Your task to perform on an android device: toggle javascript in the chrome app Image 0: 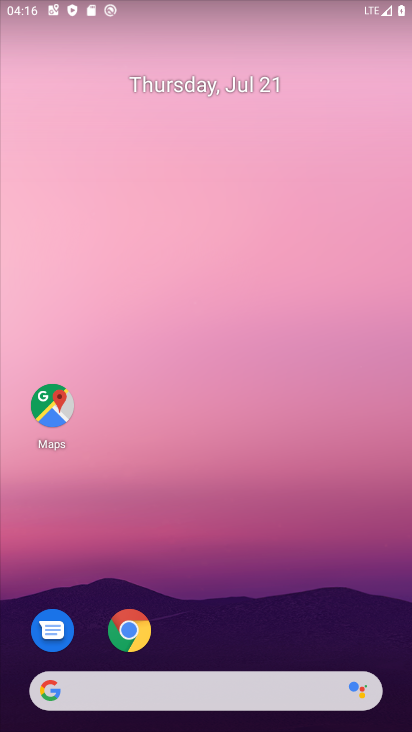
Step 0: click (151, 621)
Your task to perform on an android device: toggle javascript in the chrome app Image 1: 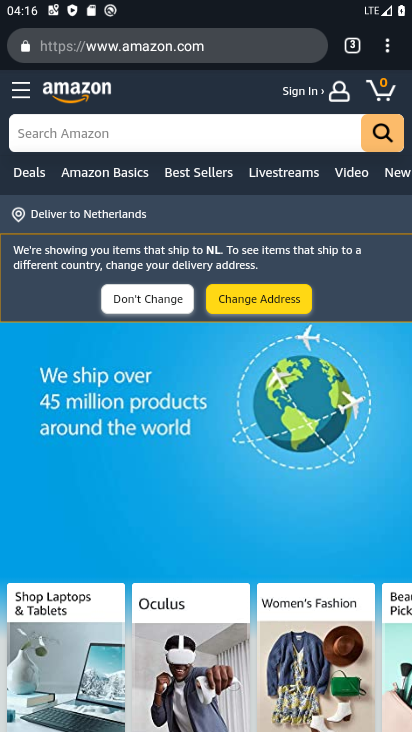
Step 1: click (387, 39)
Your task to perform on an android device: toggle javascript in the chrome app Image 2: 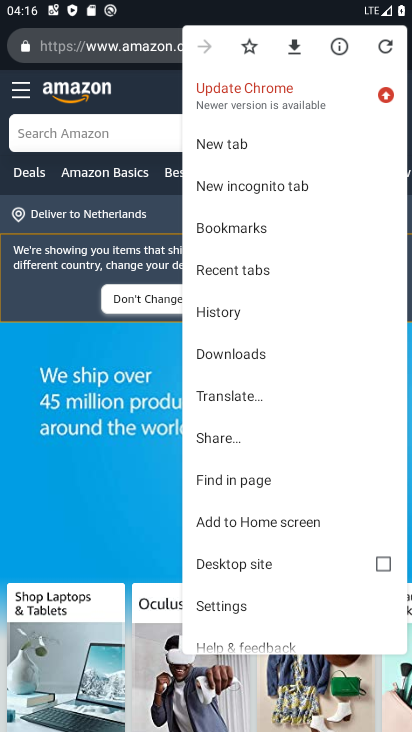
Step 2: click (258, 614)
Your task to perform on an android device: toggle javascript in the chrome app Image 3: 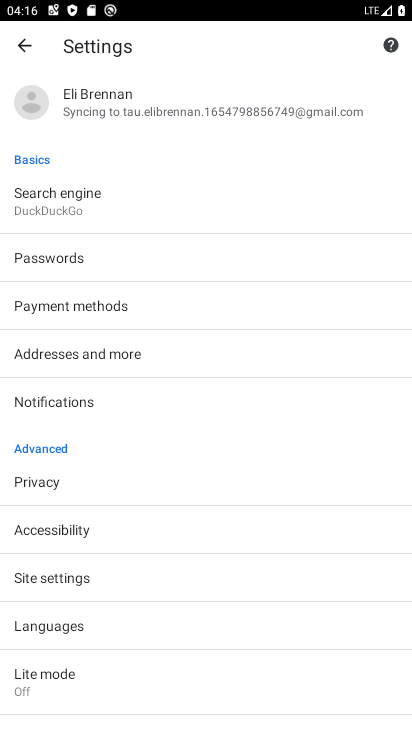
Step 3: click (99, 574)
Your task to perform on an android device: toggle javascript in the chrome app Image 4: 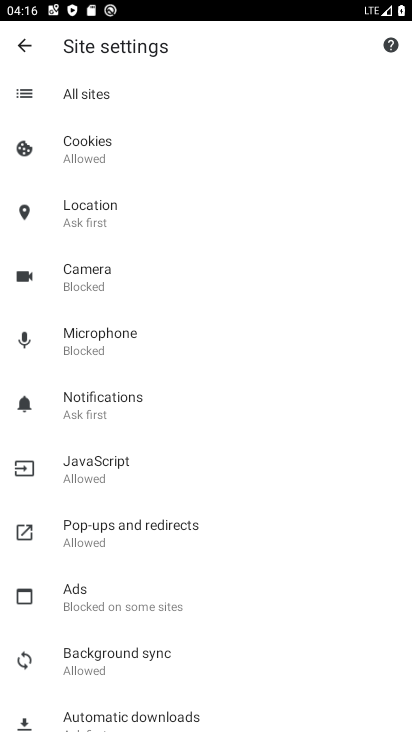
Step 4: click (110, 490)
Your task to perform on an android device: toggle javascript in the chrome app Image 5: 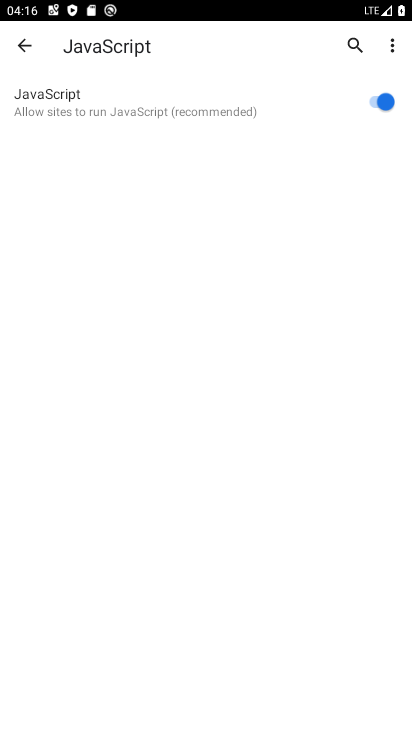
Step 5: click (374, 81)
Your task to perform on an android device: toggle javascript in the chrome app Image 6: 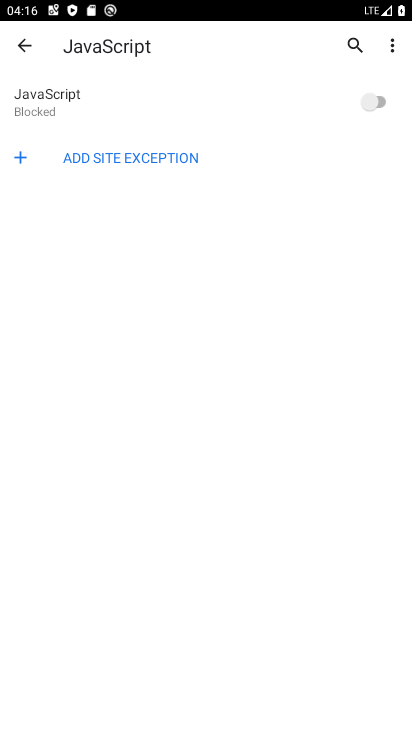
Step 6: click (374, 81)
Your task to perform on an android device: toggle javascript in the chrome app Image 7: 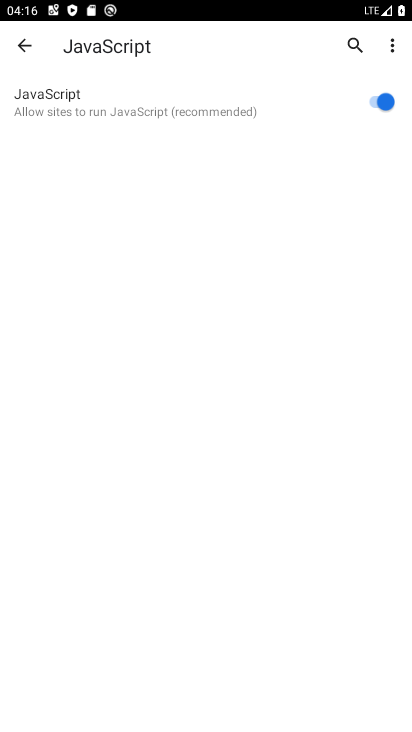
Step 7: click (374, 81)
Your task to perform on an android device: toggle javascript in the chrome app Image 8: 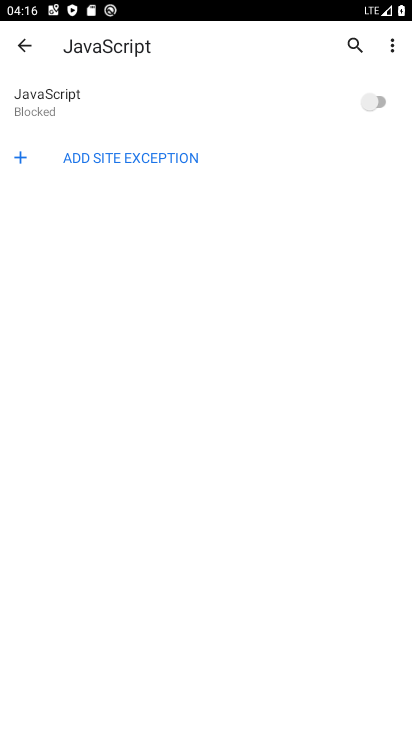
Step 8: click (374, 81)
Your task to perform on an android device: toggle javascript in the chrome app Image 9: 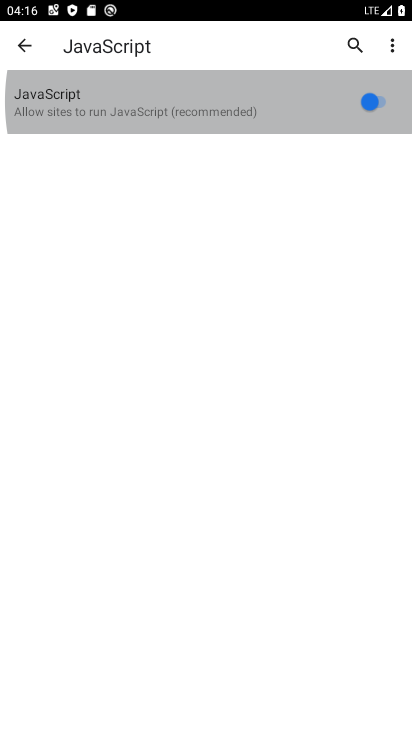
Step 9: click (391, 105)
Your task to perform on an android device: toggle javascript in the chrome app Image 10: 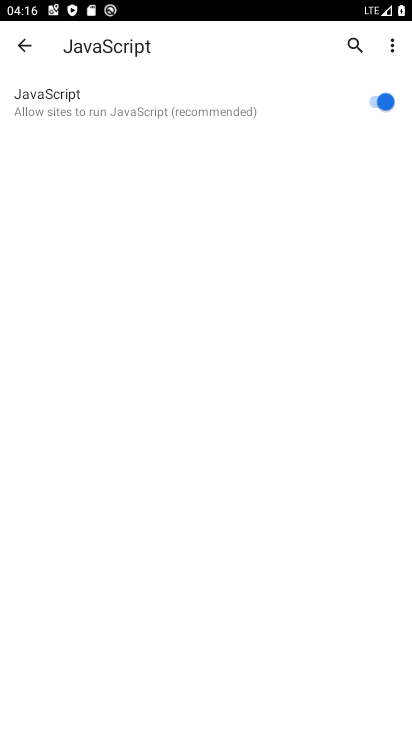
Step 10: task complete